Your task to perform on an android device: open app "Google Photos" (install if not already installed) Image 0: 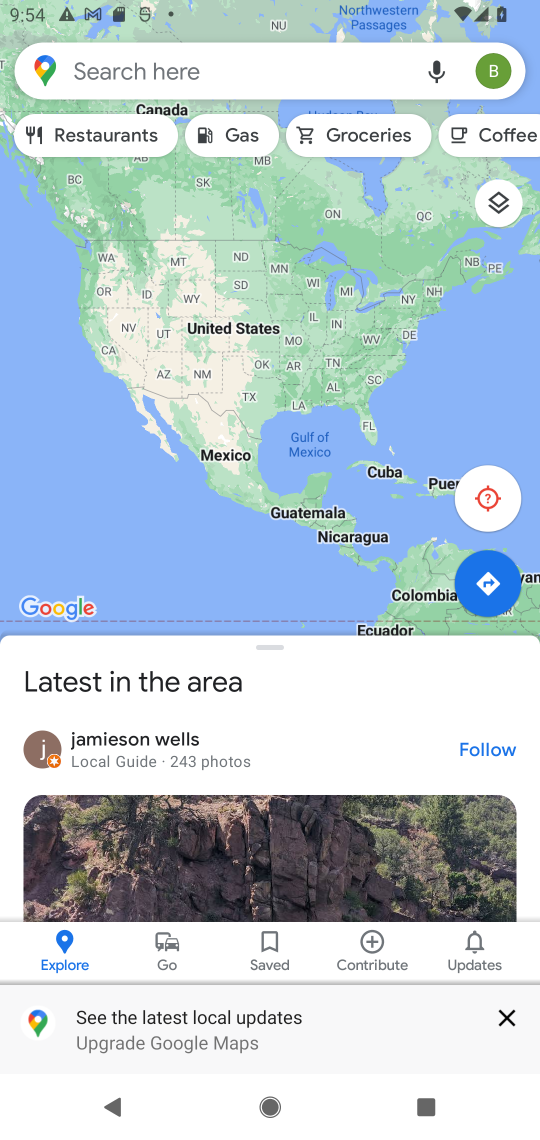
Step 0: press home button
Your task to perform on an android device: open app "Google Photos" (install if not already installed) Image 1: 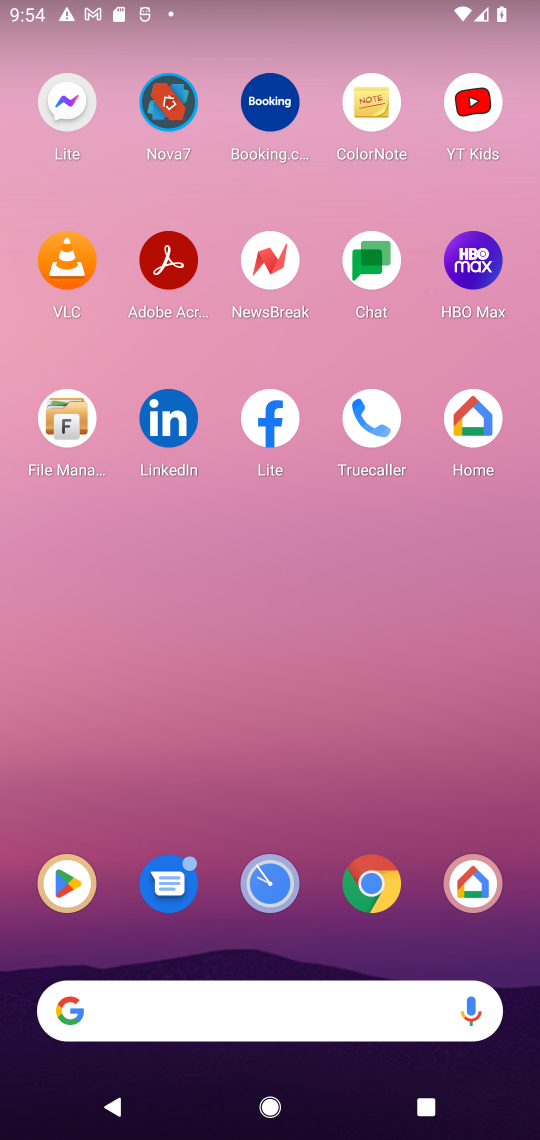
Step 1: click (68, 896)
Your task to perform on an android device: open app "Google Photos" (install if not already installed) Image 2: 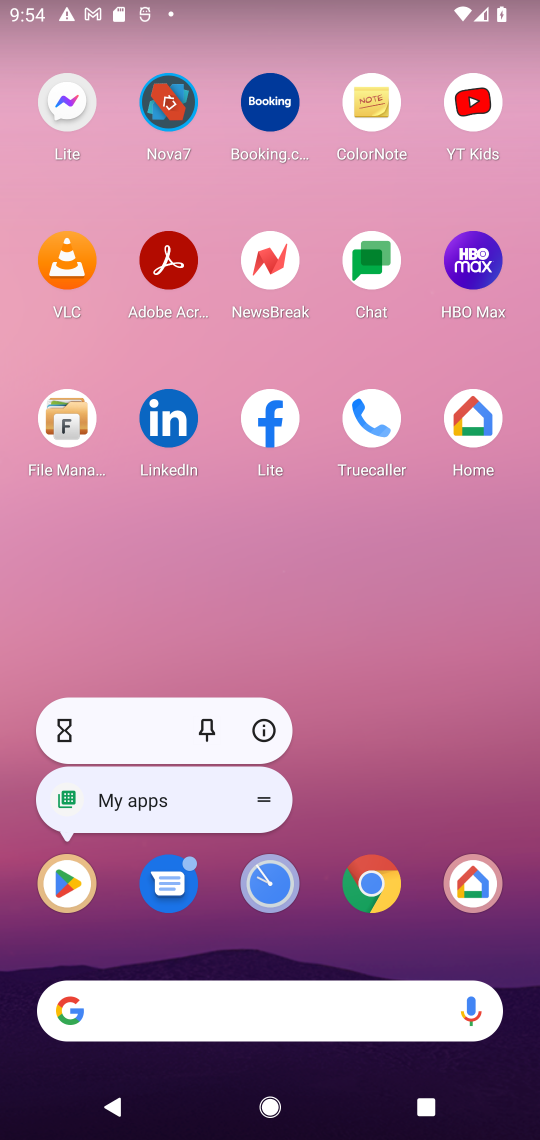
Step 2: click (55, 905)
Your task to perform on an android device: open app "Google Photos" (install if not already installed) Image 3: 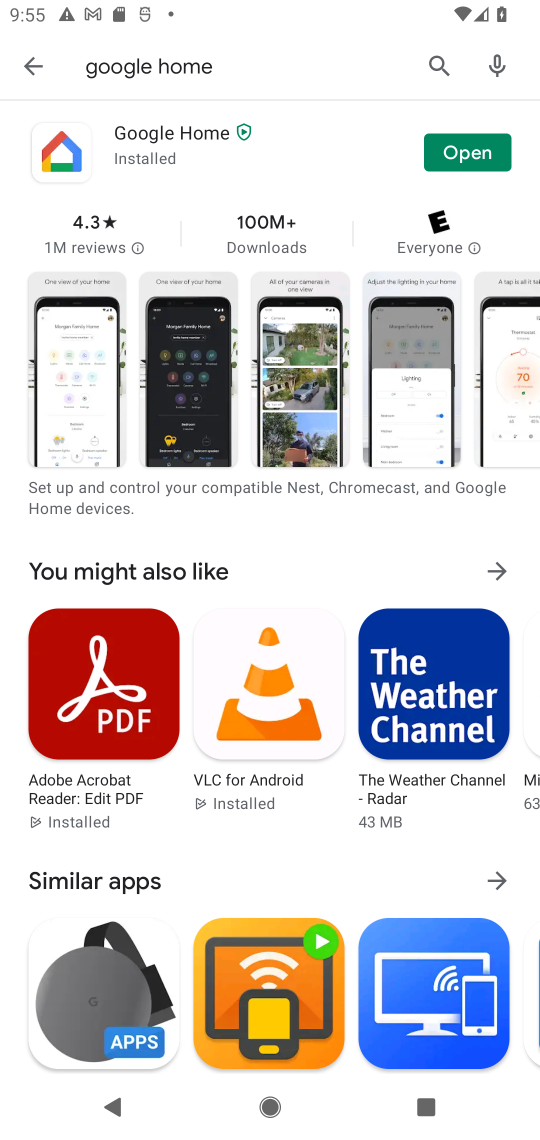
Step 3: click (168, 63)
Your task to perform on an android device: open app "Google Photos" (install if not already installed) Image 4: 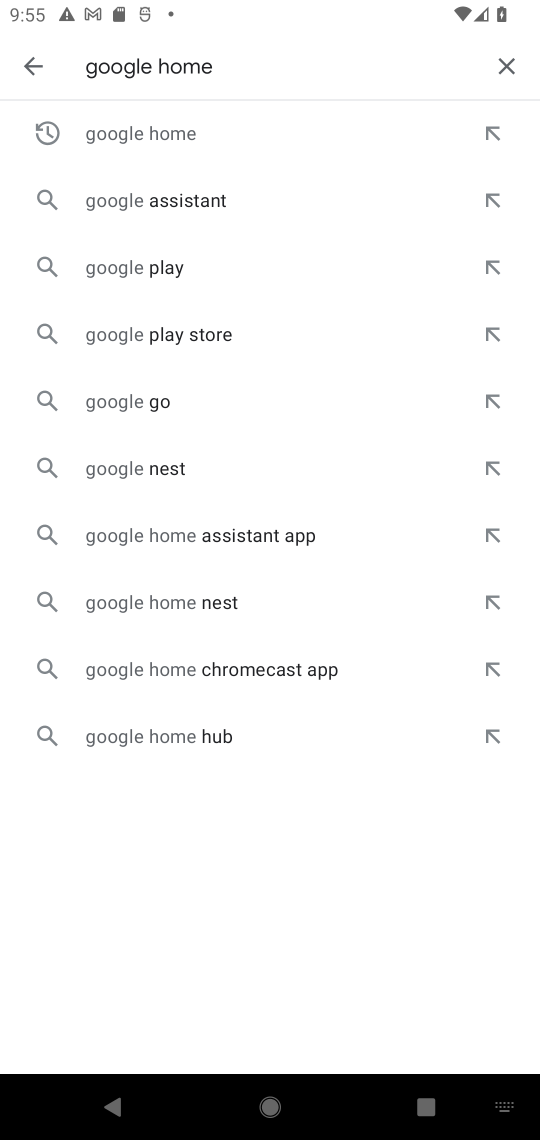
Step 4: click (180, 68)
Your task to perform on an android device: open app "Google Photos" (install if not already installed) Image 5: 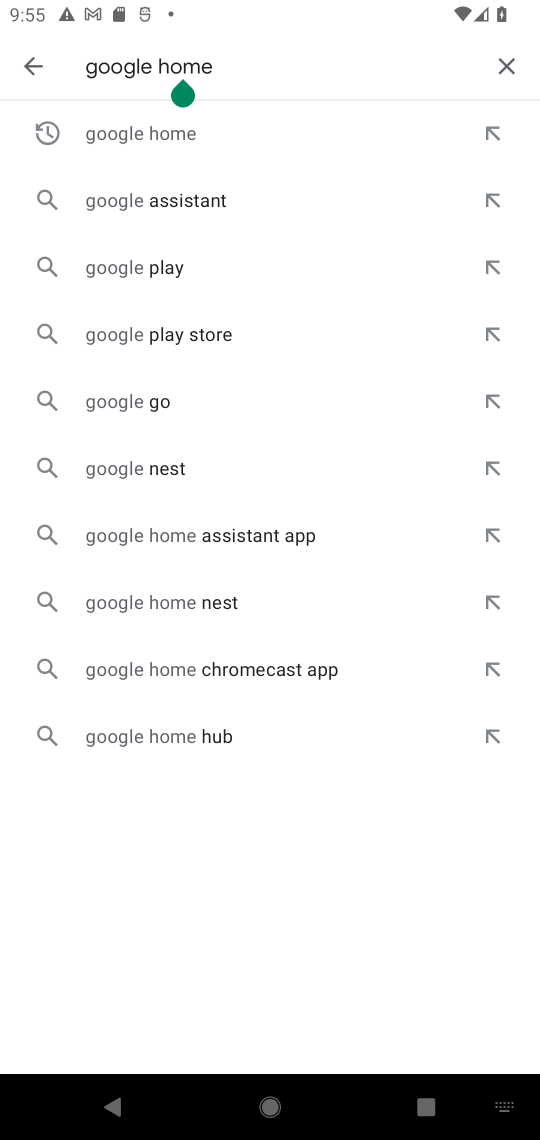
Step 5: click (183, 61)
Your task to perform on an android device: open app "Google Photos" (install if not already installed) Image 6: 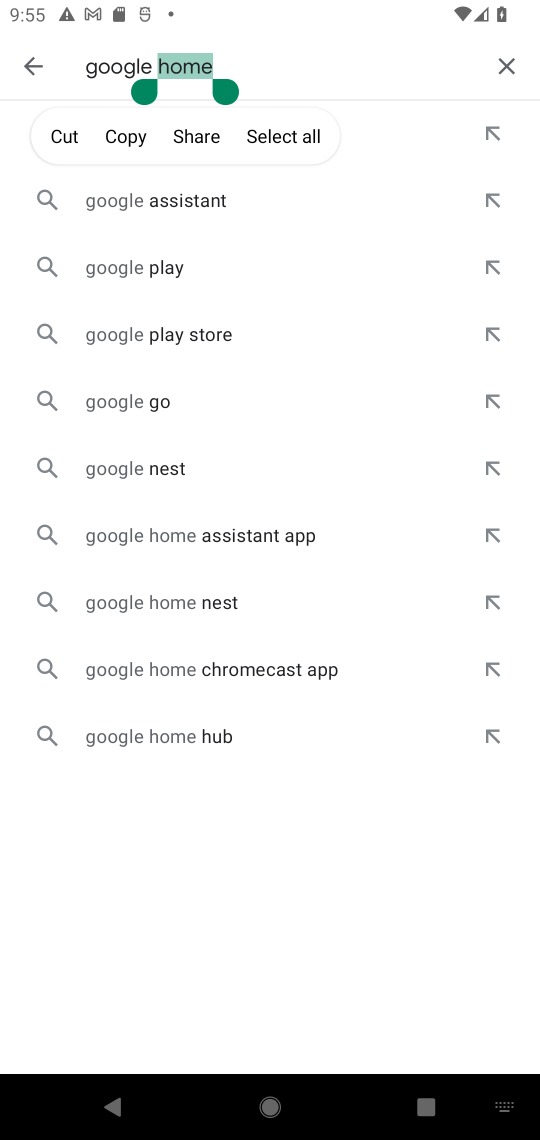
Step 6: type "Photos"
Your task to perform on an android device: open app "Google Photos" (install if not already installed) Image 7: 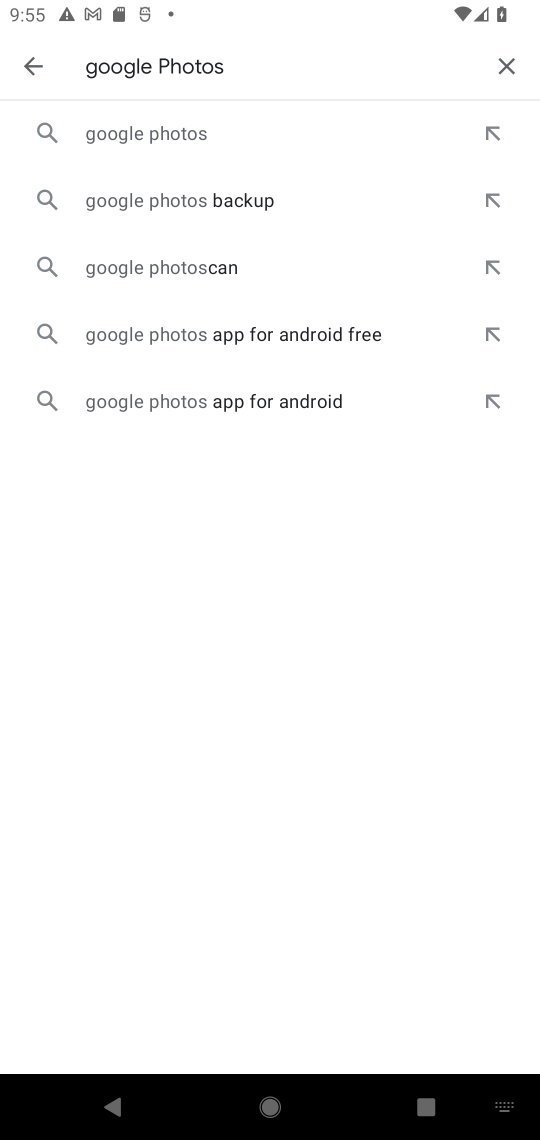
Step 7: click (192, 138)
Your task to perform on an android device: open app "Google Photos" (install if not already installed) Image 8: 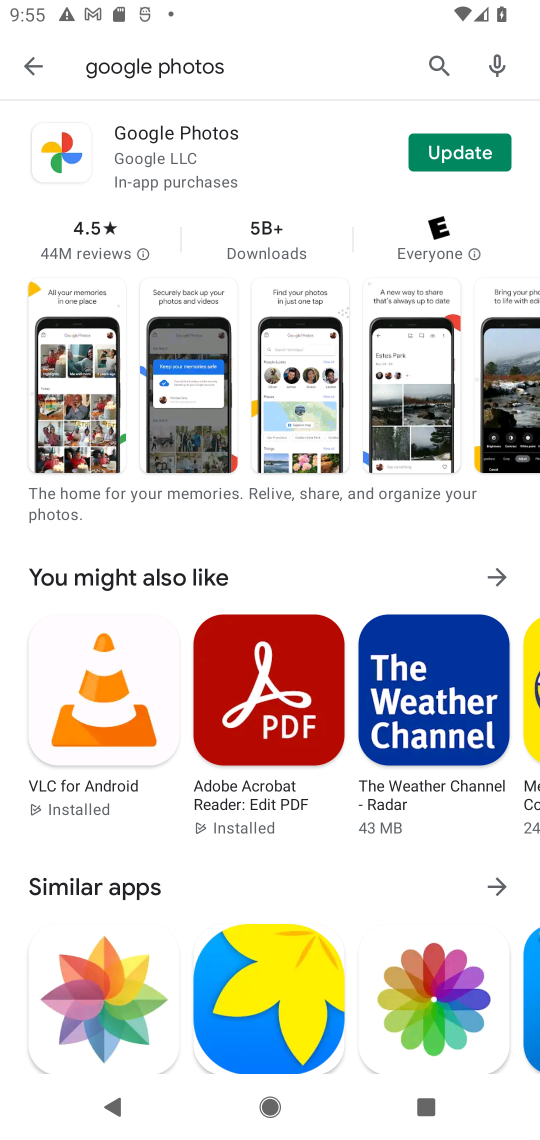
Step 8: click (469, 154)
Your task to perform on an android device: open app "Google Photos" (install if not already installed) Image 9: 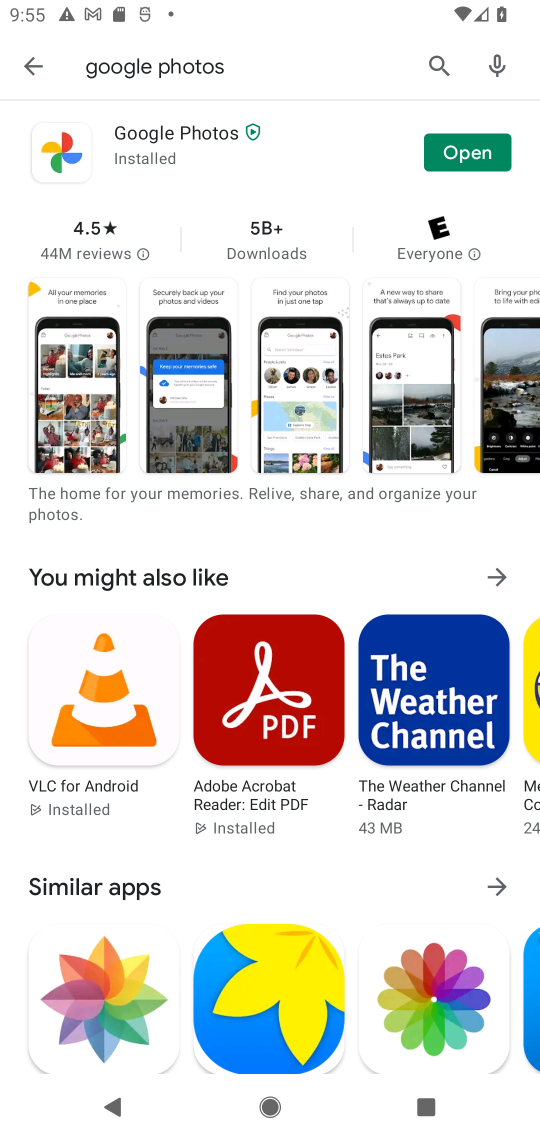
Step 9: click (475, 162)
Your task to perform on an android device: open app "Google Photos" (install if not already installed) Image 10: 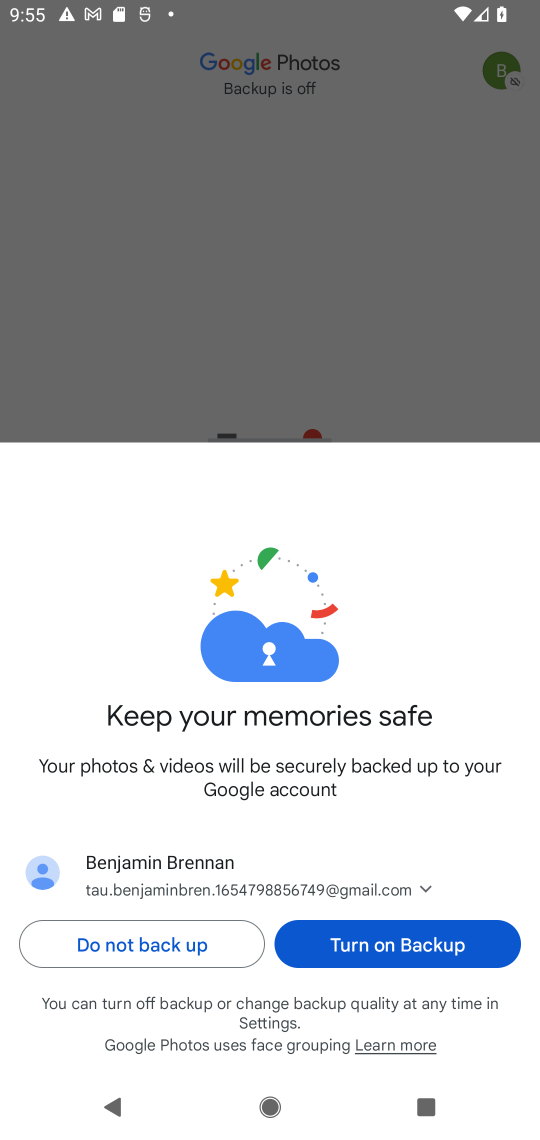
Step 10: click (176, 942)
Your task to perform on an android device: open app "Google Photos" (install if not already installed) Image 11: 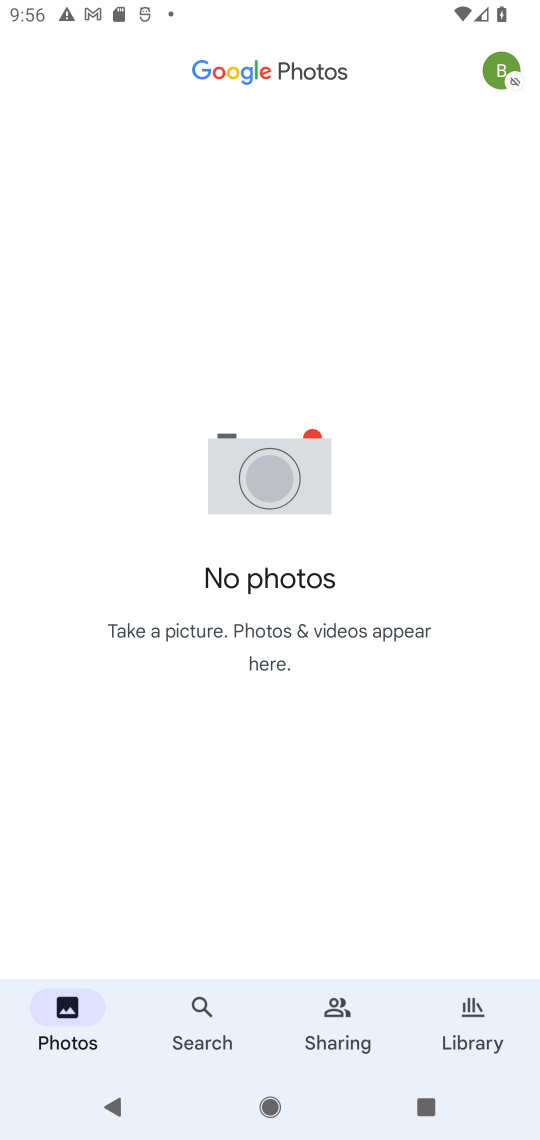
Step 11: task complete